Your task to perform on an android device: choose inbox layout in the gmail app Image 0: 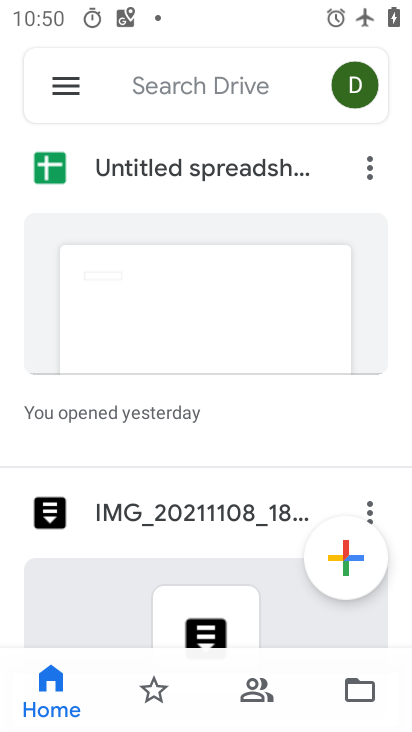
Step 0: press home button
Your task to perform on an android device: choose inbox layout in the gmail app Image 1: 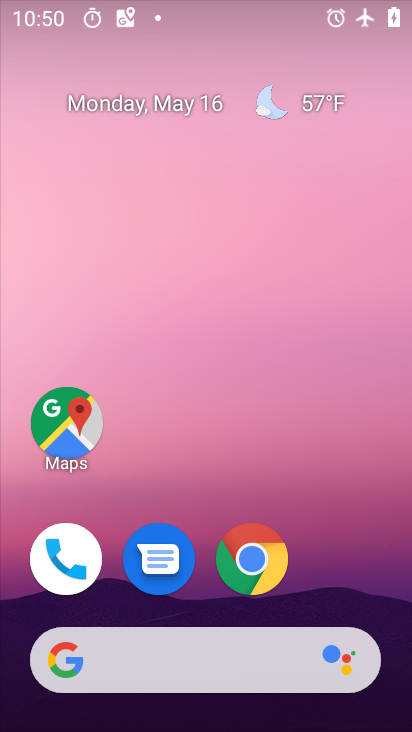
Step 1: drag from (298, 549) to (305, 99)
Your task to perform on an android device: choose inbox layout in the gmail app Image 2: 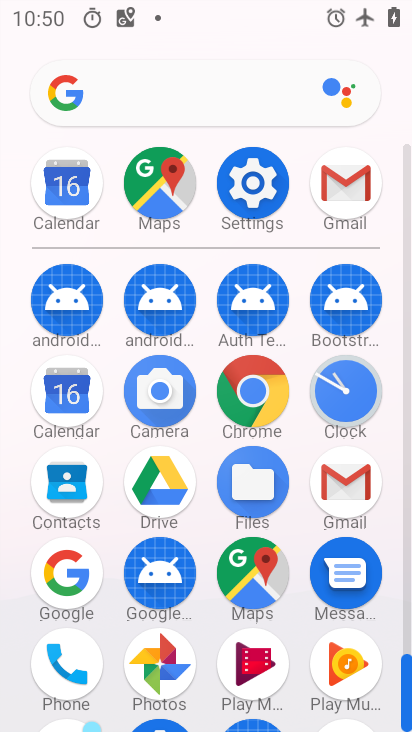
Step 2: click (363, 198)
Your task to perform on an android device: choose inbox layout in the gmail app Image 3: 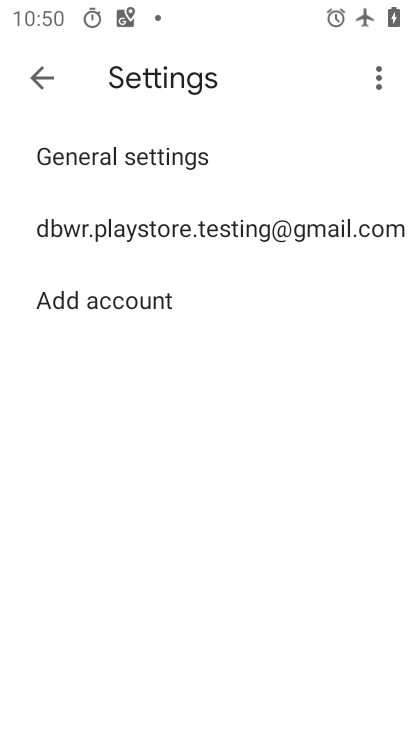
Step 3: click (179, 227)
Your task to perform on an android device: choose inbox layout in the gmail app Image 4: 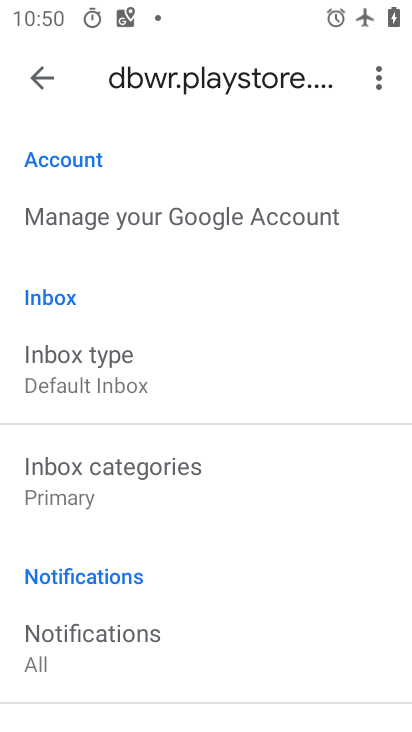
Step 4: click (97, 351)
Your task to perform on an android device: choose inbox layout in the gmail app Image 5: 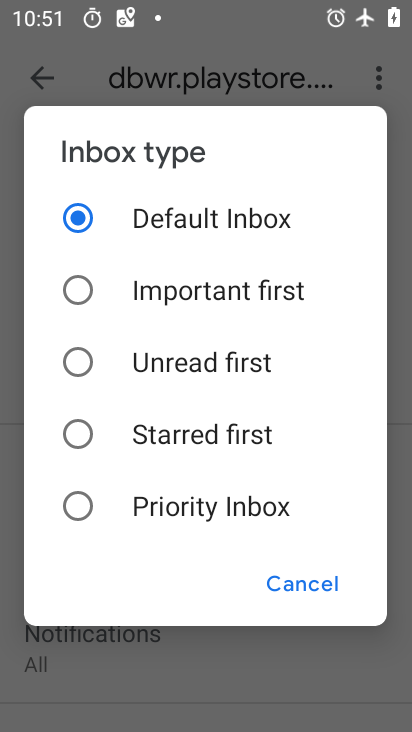
Step 5: task complete